Your task to perform on an android device: Open notification settings Image 0: 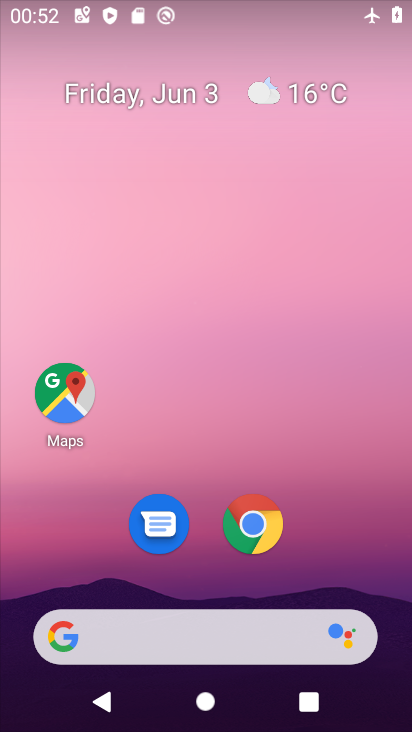
Step 0: drag from (203, 477) to (186, 11)
Your task to perform on an android device: Open notification settings Image 1: 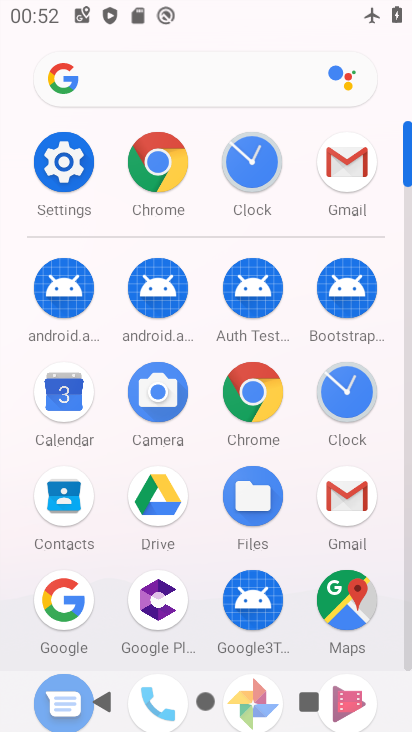
Step 1: click (73, 158)
Your task to perform on an android device: Open notification settings Image 2: 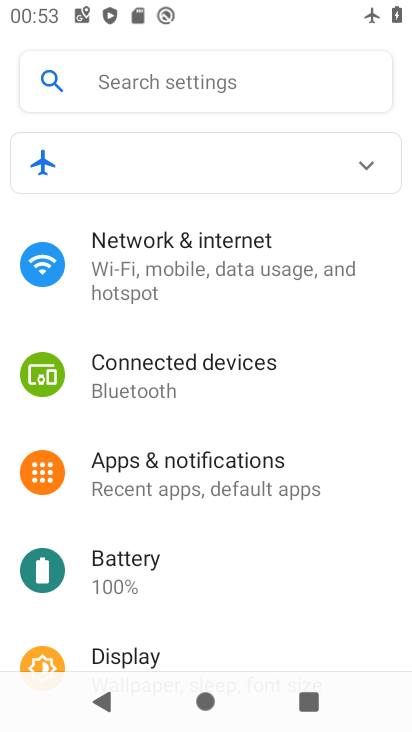
Step 2: task complete